Your task to perform on an android device: How do I get to the nearest electronics store? Image 0: 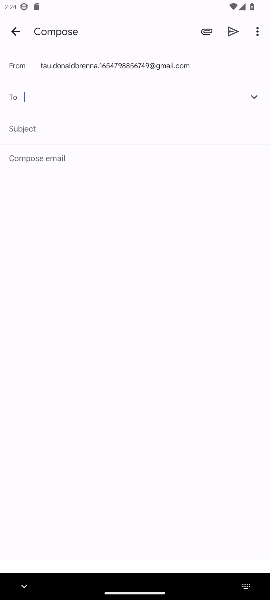
Step 0: press home button
Your task to perform on an android device: How do I get to the nearest electronics store? Image 1: 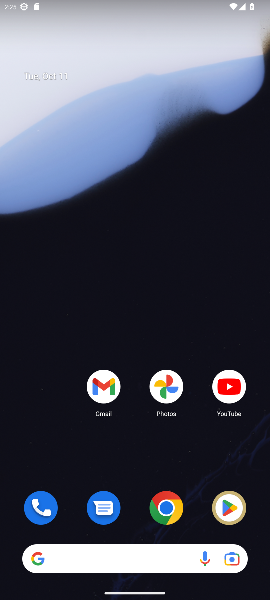
Step 1: drag from (226, 469) to (189, 151)
Your task to perform on an android device: How do I get to the nearest electronics store? Image 2: 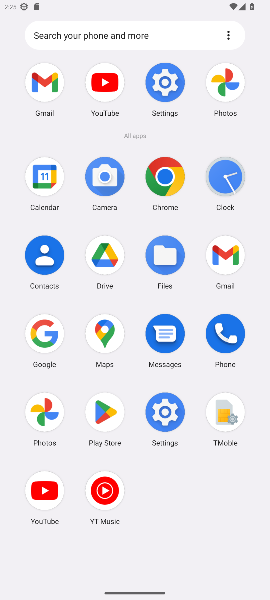
Step 2: click (106, 333)
Your task to perform on an android device: How do I get to the nearest electronics store? Image 3: 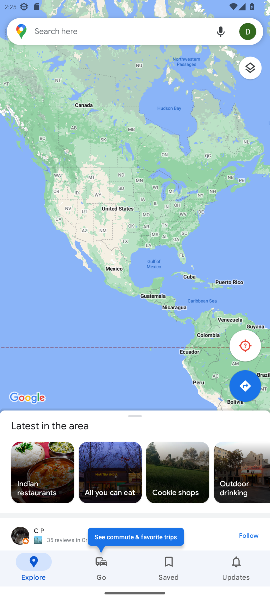
Step 3: click (103, 26)
Your task to perform on an android device: How do I get to the nearest electronics store? Image 4: 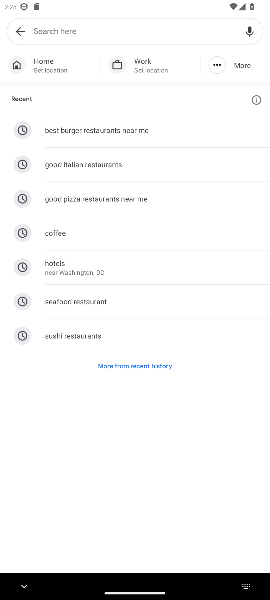
Step 4: type "nearest electronics store"
Your task to perform on an android device: How do I get to the nearest electronics store? Image 5: 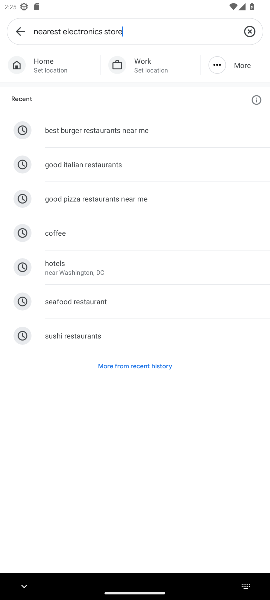
Step 5: type ""
Your task to perform on an android device: How do I get to the nearest electronics store? Image 6: 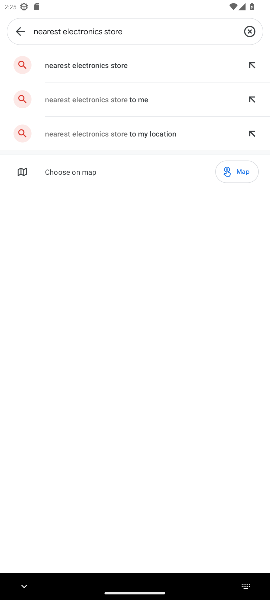
Step 6: click (95, 68)
Your task to perform on an android device: How do I get to the nearest electronics store? Image 7: 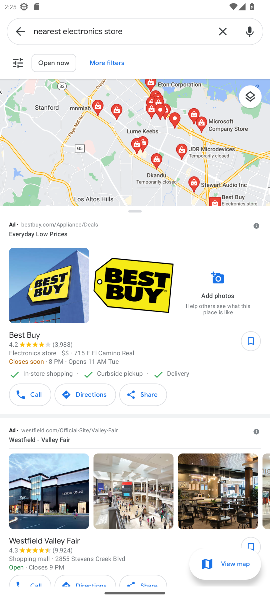
Step 7: task complete